Your task to perform on an android device: move a message to another label in the gmail app Image 0: 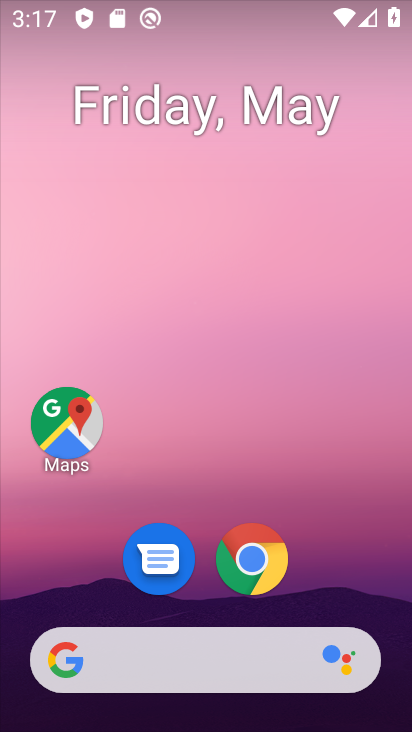
Step 0: drag from (325, 549) to (398, 2)
Your task to perform on an android device: move a message to another label in the gmail app Image 1: 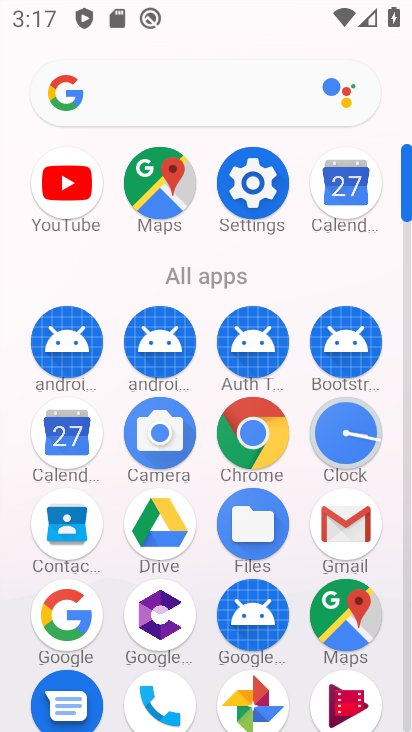
Step 1: click (325, 522)
Your task to perform on an android device: move a message to another label in the gmail app Image 2: 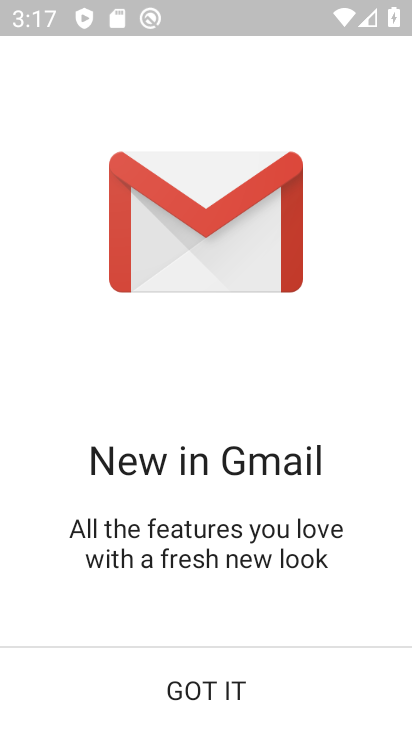
Step 2: click (279, 500)
Your task to perform on an android device: move a message to another label in the gmail app Image 3: 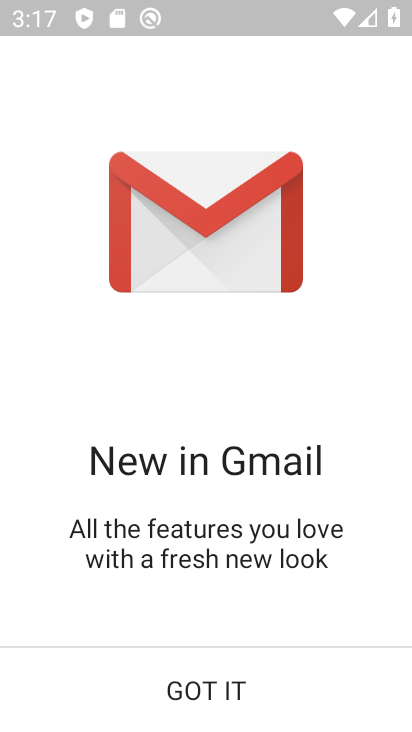
Step 3: click (222, 690)
Your task to perform on an android device: move a message to another label in the gmail app Image 4: 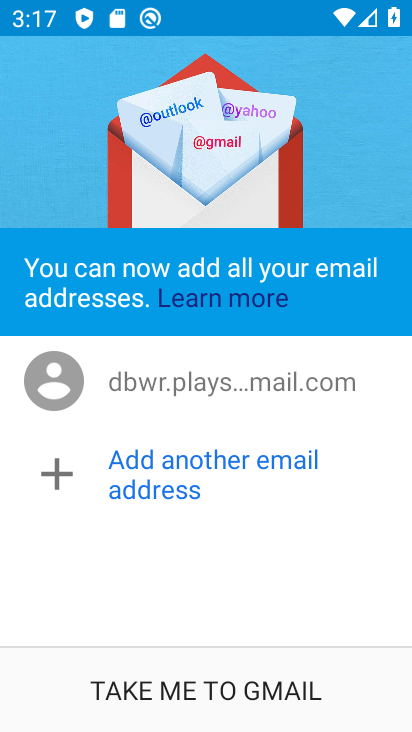
Step 4: click (290, 687)
Your task to perform on an android device: move a message to another label in the gmail app Image 5: 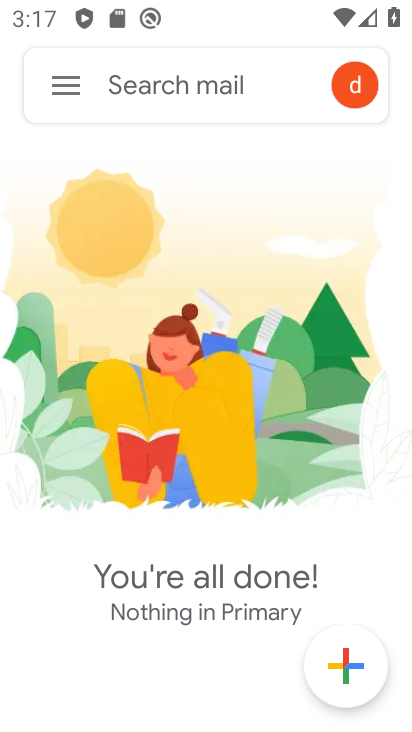
Step 5: click (82, 75)
Your task to perform on an android device: move a message to another label in the gmail app Image 6: 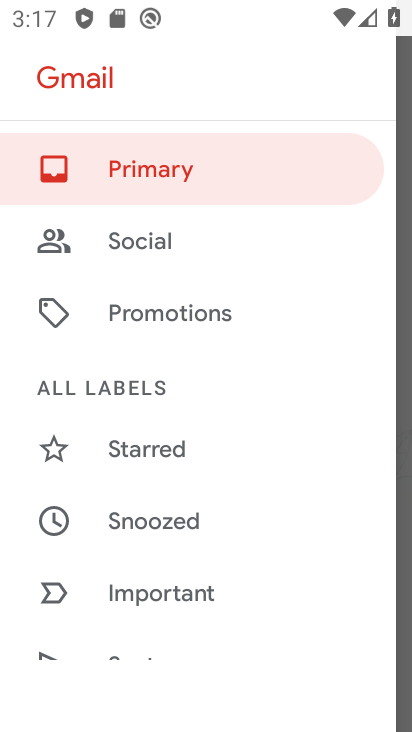
Step 6: drag from (199, 599) to (176, 215)
Your task to perform on an android device: move a message to another label in the gmail app Image 7: 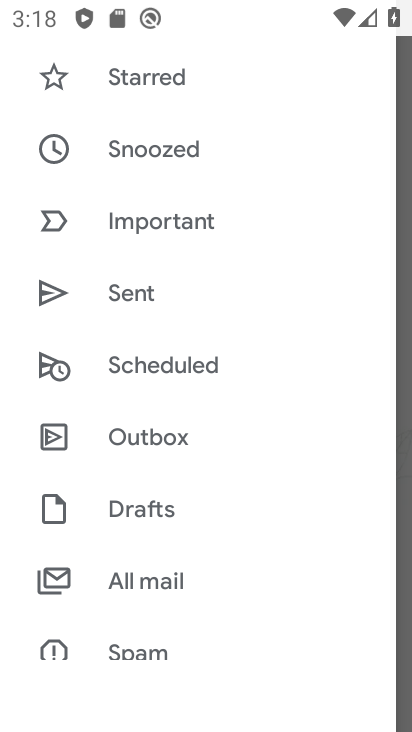
Step 7: click (154, 576)
Your task to perform on an android device: move a message to another label in the gmail app Image 8: 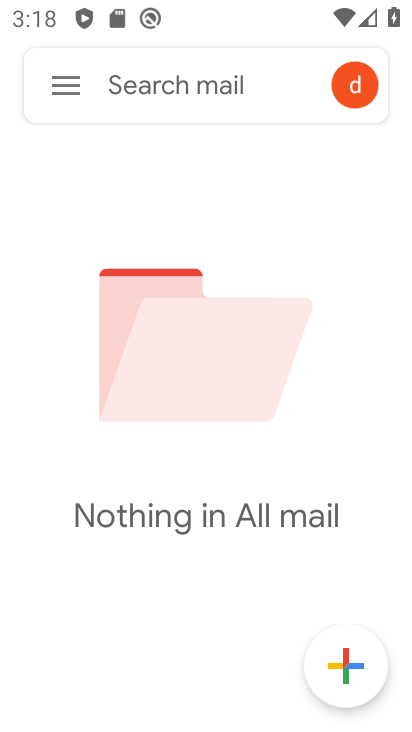
Step 8: task complete